Your task to perform on an android device: Go to sound settings Image 0: 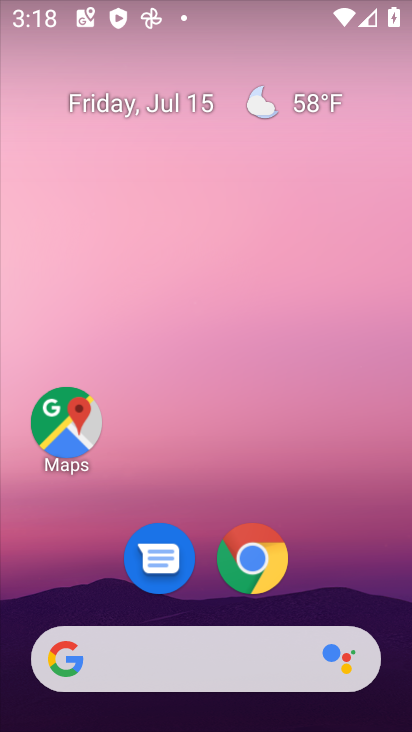
Step 0: drag from (360, 585) to (362, 75)
Your task to perform on an android device: Go to sound settings Image 1: 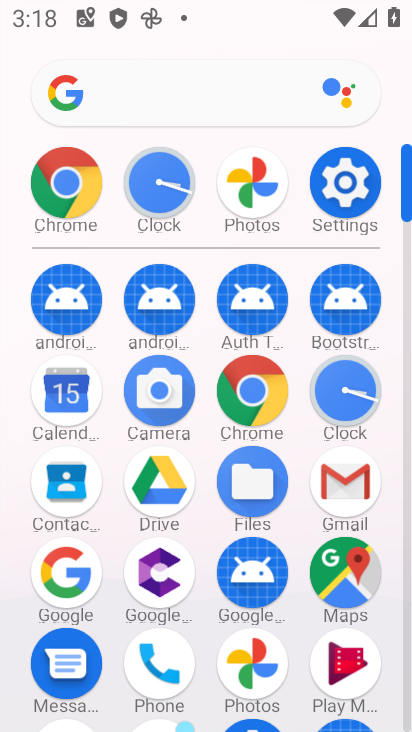
Step 1: click (356, 210)
Your task to perform on an android device: Go to sound settings Image 2: 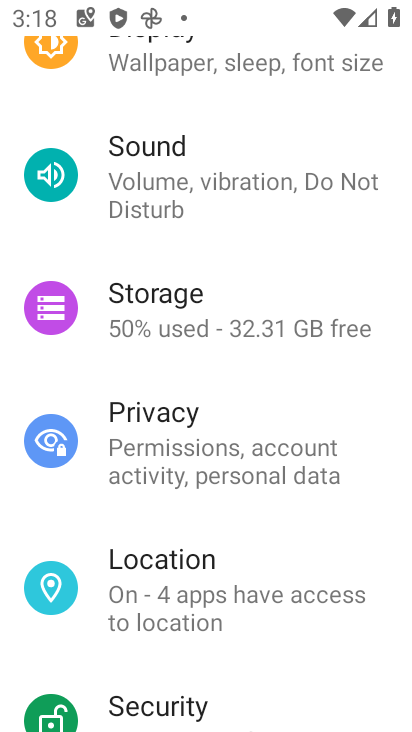
Step 2: drag from (375, 256) to (358, 346)
Your task to perform on an android device: Go to sound settings Image 3: 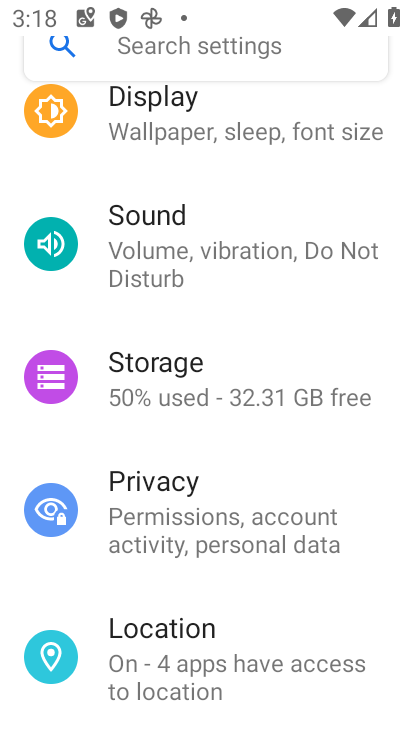
Step 3: drag from (366, 207) to (364, 322)
Your task to perform on an android device: Go to sound settings Image 4: 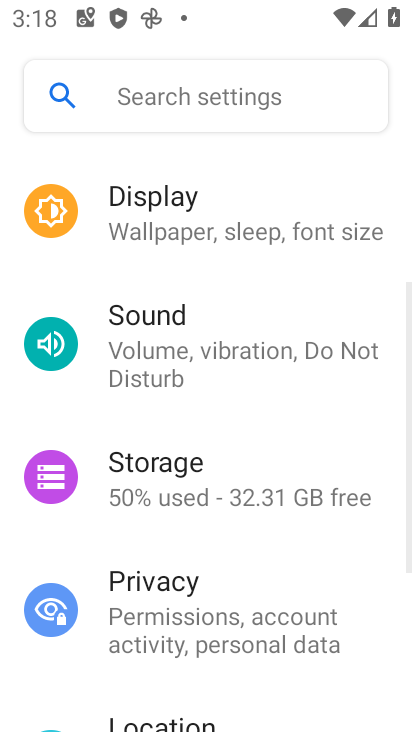
Step 4: drag from (367, 194) to (372, 342)
Your task to perform on an android device: Go to sound settings Image 5: 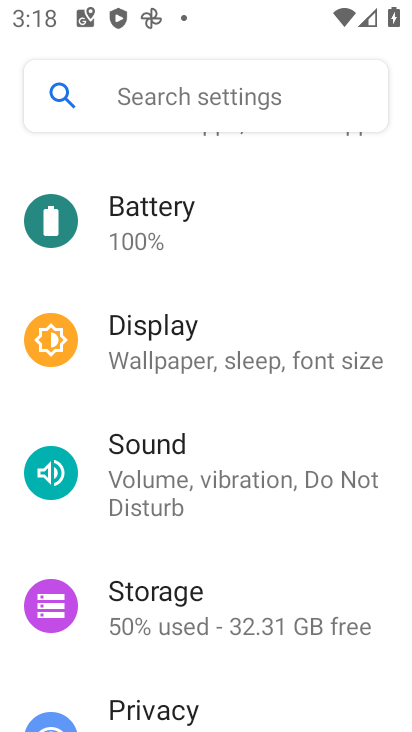
Step 5: click (351, 457)
Your task to perform on an android device: Go to sound settings Image 6: 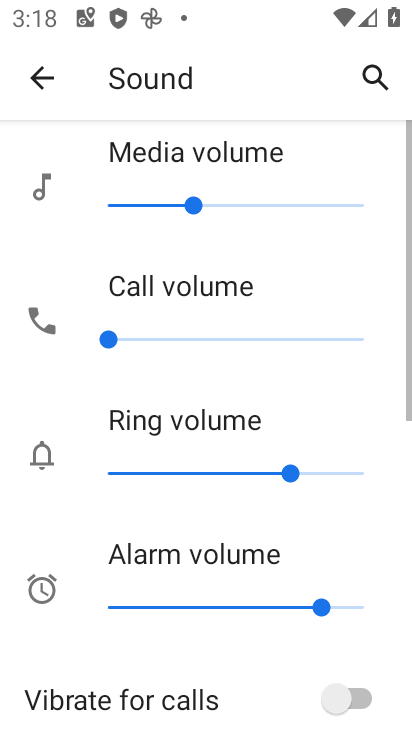
Step 6: task complete